Your task to perform on an android device: clear all cookies in the chrome app Image 0: 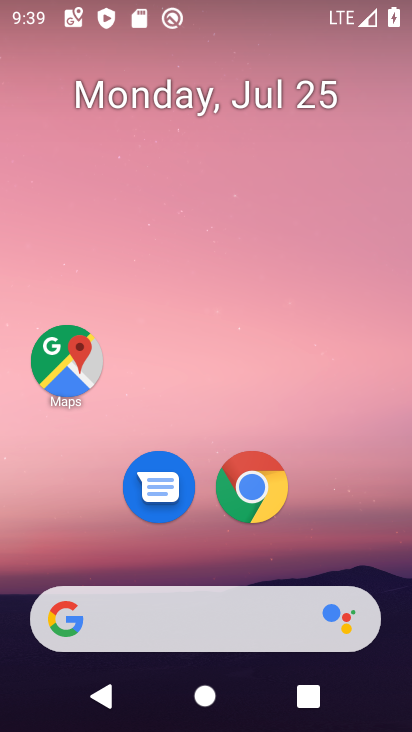
Step 0: click (266, 491)
Your task to perform on an android device: clear all cookies in the chrome app Image 1: 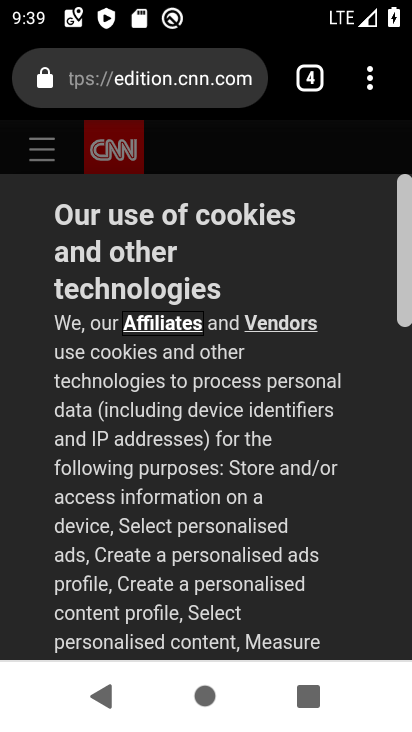
Step 1: drag from (373, 62) to (75, 451)
Your task to perform on an android device: clear all cookies in the chrome app Image 2: 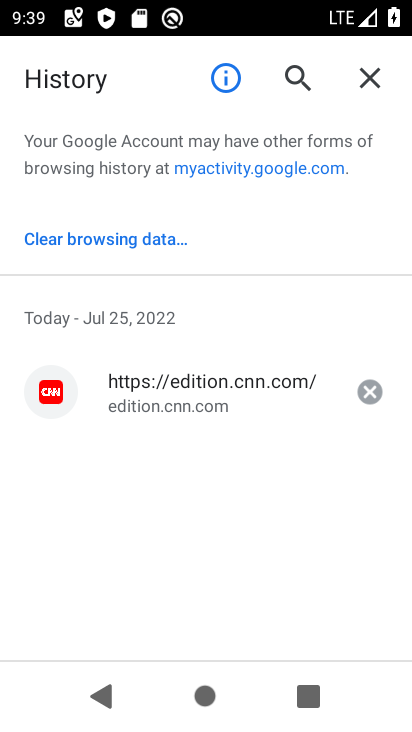
Step 2: click (155, 241)
Your task to perform on an android device: clear all cookies in the chrome app Image 3: 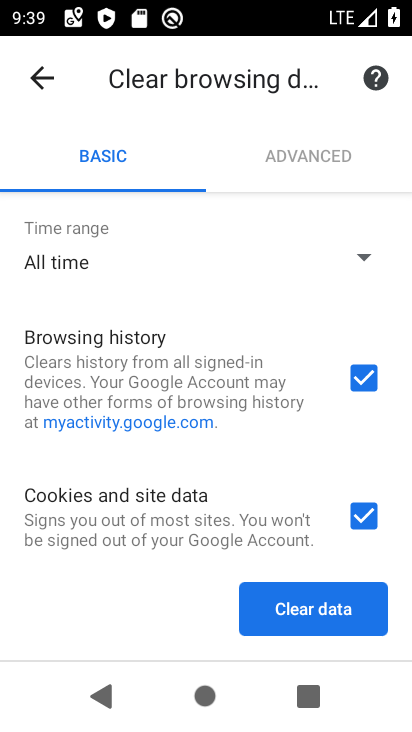
Step 3: drag from (147, 509) to (212, 259)
Your task to perform on an android device: clear all cookies in the chrome app Image 4: 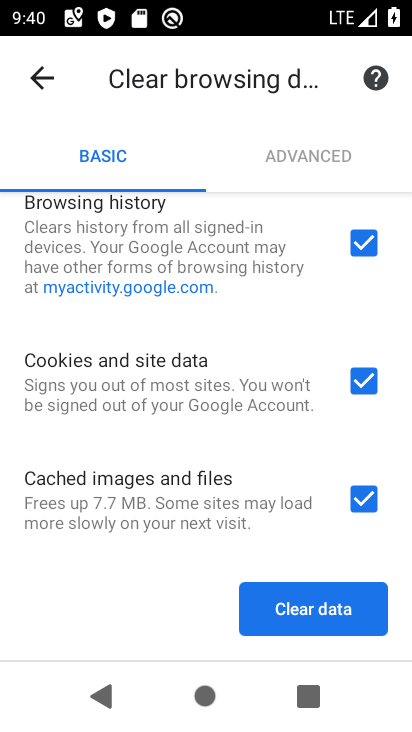
Step 4: click (364, 239)
Your task to perform on an android device: clear all cookies in the chrome app Image 5: 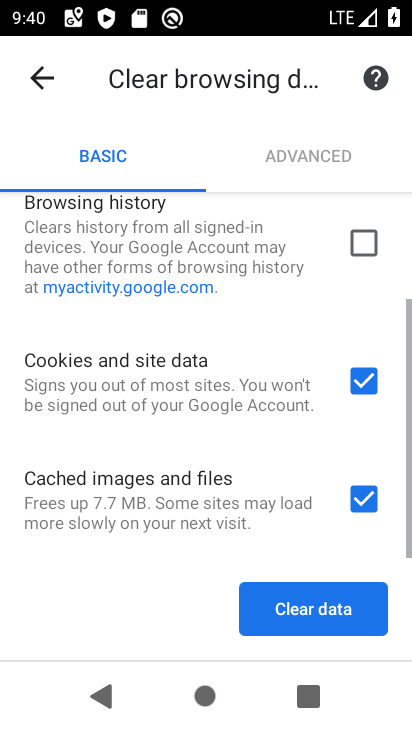
Step 5: click (364, 509)
Your task to perform on an android device: clear all cookies in the chrome app Image 6: 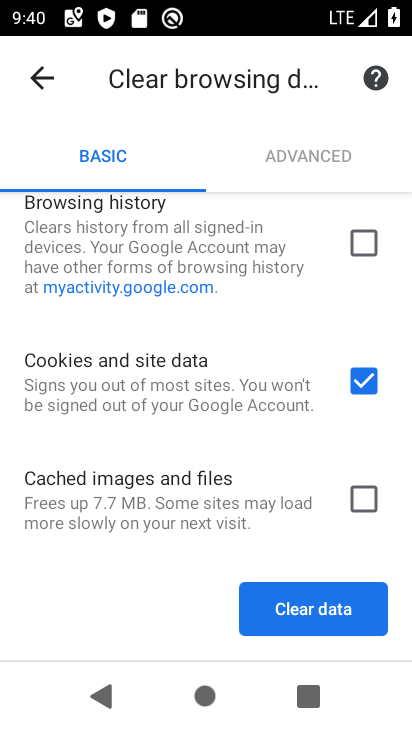
Step 6: click (357, 602)
Your task to perform on an android device: clear all cookies in the chrome app Image 7: 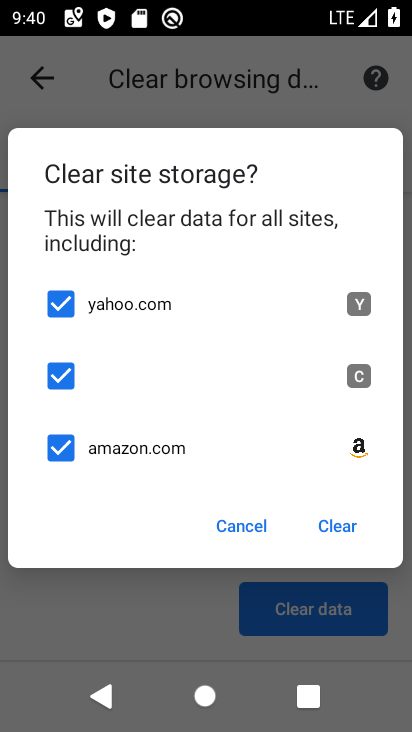
Step 7: click (312, 536)
Your task to perform on an android device: clear all cookies in the chrome app Image 8: 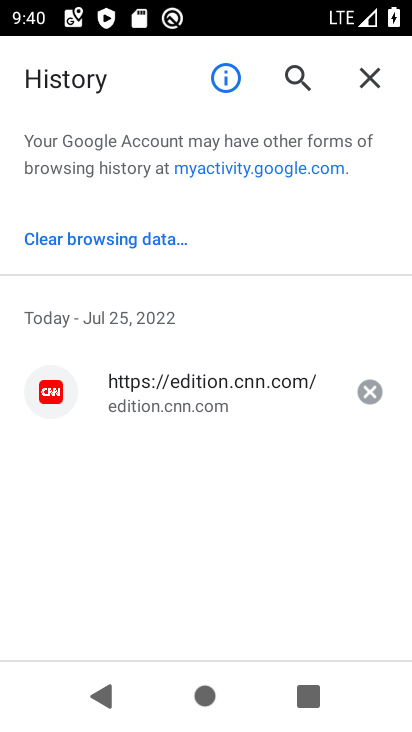
Step 8: task complete